Your task to perform on an android device: Open settings Image 0: 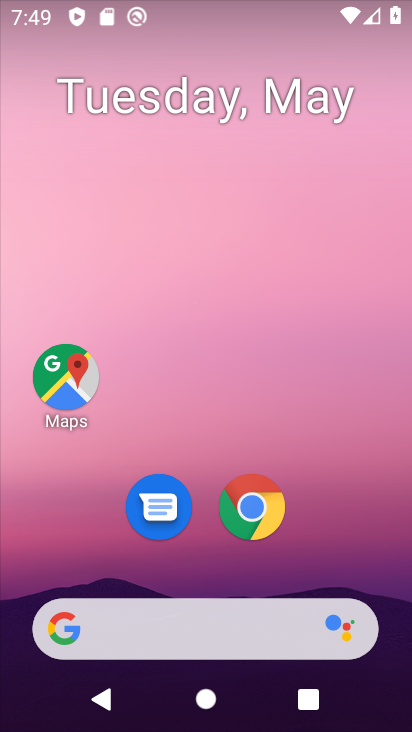
Step 0: click (264, 21)
Your task to perform on an android device: Open settings Image 1: 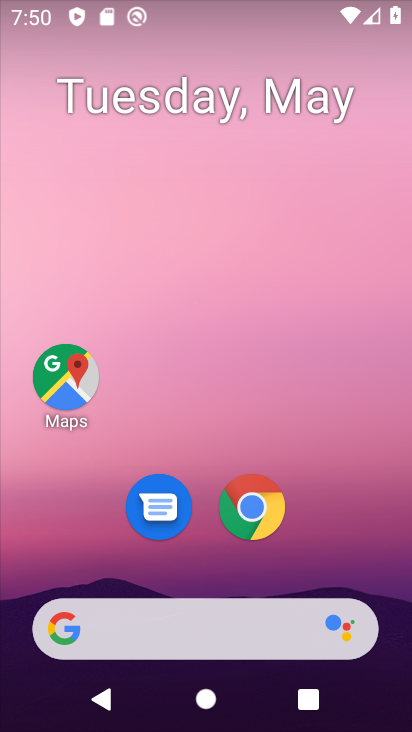
Step 1: drag from (13, 594) to (32, 55)
Your task to perform on an android device: Open settings Image 2: 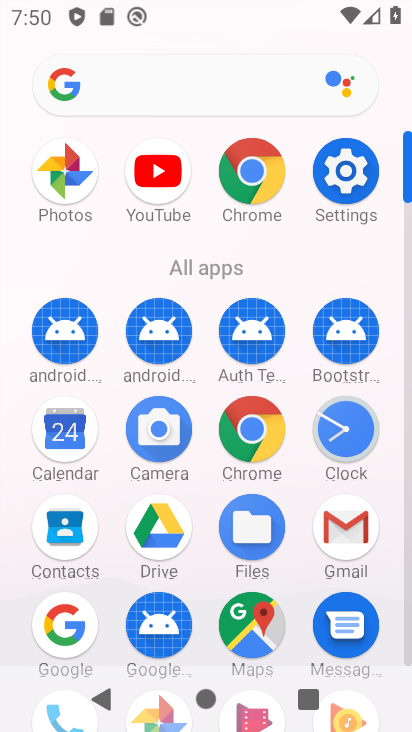
Step 2: click (344, 169)
Your task to perform on an android device: Open settings Image 3: 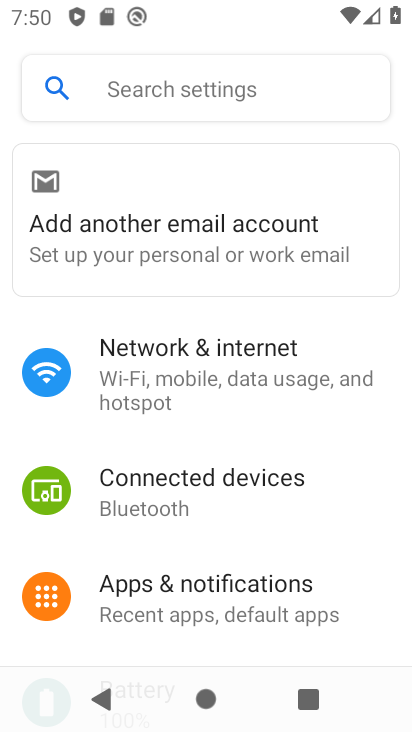
Step 3: click (233, 387)
Your task to perform on an android device: Open settings Image 4: 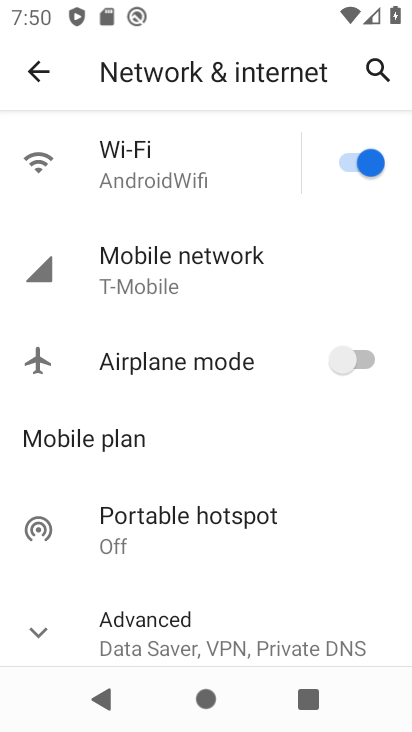
Step 4: drag from (168, 590) to (187, 197)
Your task to perform on an android device: Open settings Image 5: 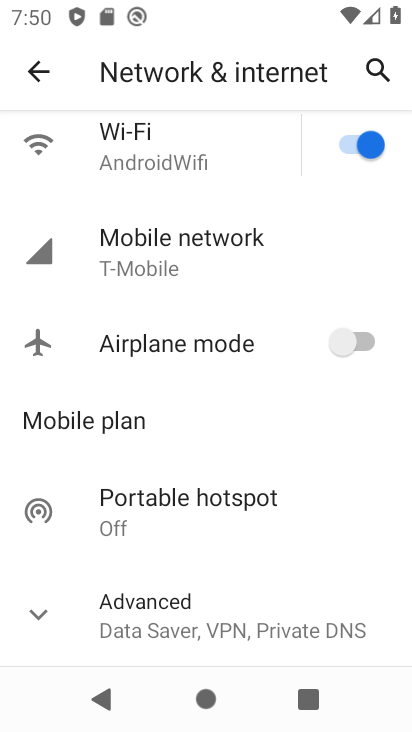
Step 5: click (38, 605)
Your task to perform on an android device: Open settings Image 6: 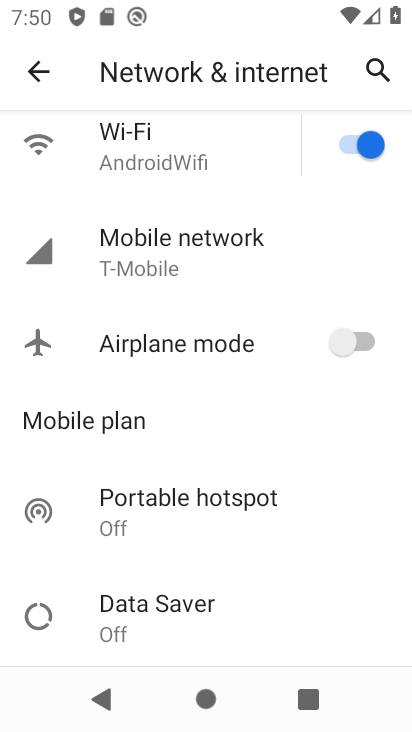
Step 6: task complete